Your task to perform on an android device: empty trash in google photos Image 0: 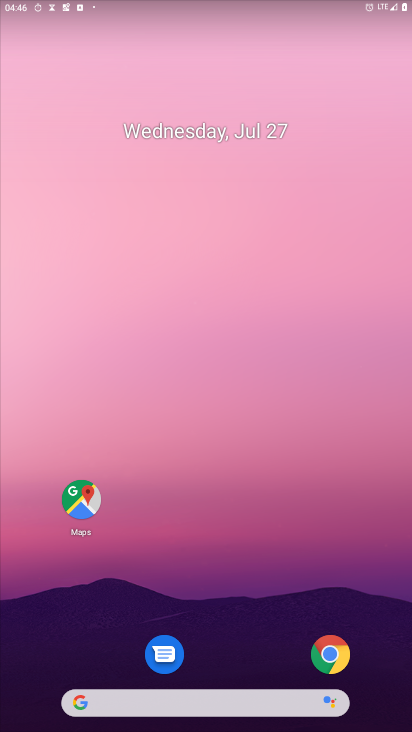
Step 0: drag from (243, 701) to (342, 0)
Your task to perform on an android device: empty trash in google photos Image 1: 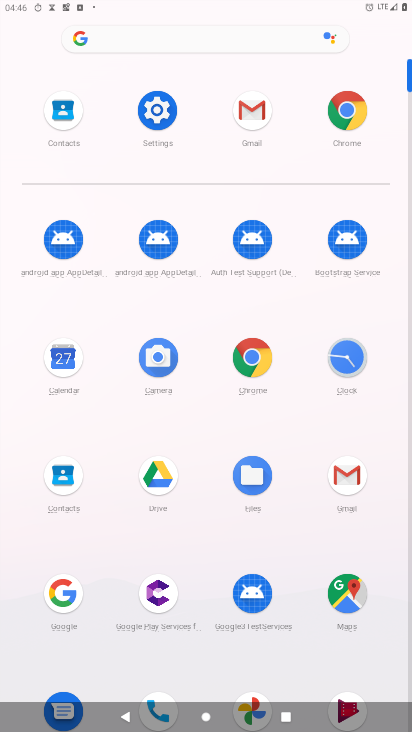
Step 1: drag from (291, 608) to (328, 265)
Your task to perform on an android device: empty trash in google photos Image 2: 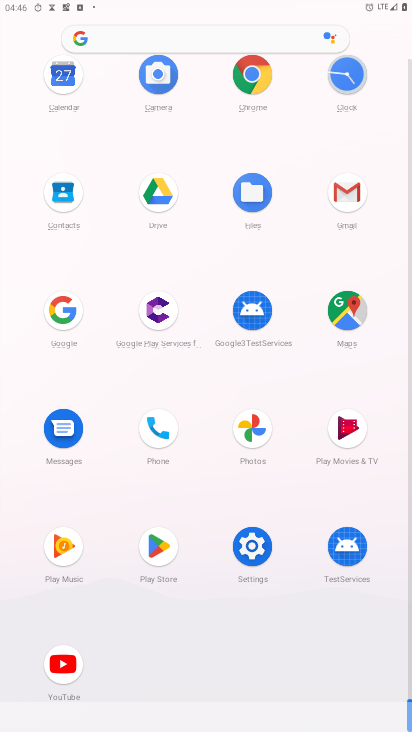
Step 2: click (253, 427)
Your task to perform on an android device: empty trash in google photos Image 3: 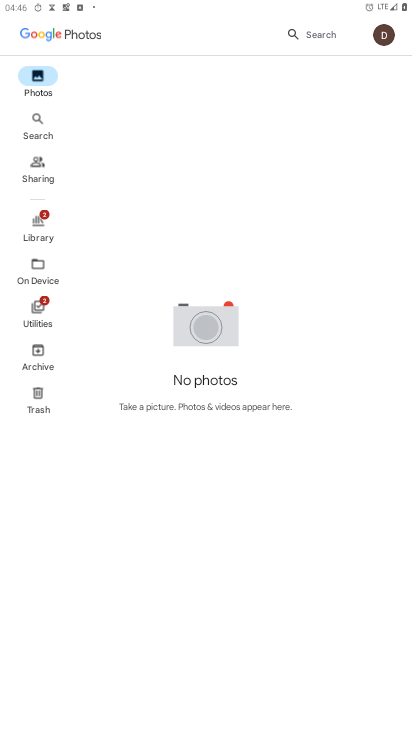
Step 3: click (42, 392)
Your task to perform on an android device: empty trash in google photos Image 4: 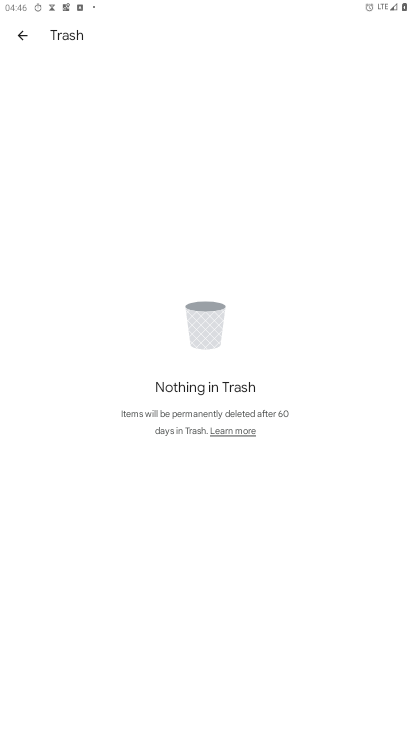
Step 4: task complete